Your task to perform on an android device: move an email to a new category in the gmail app Image 0: 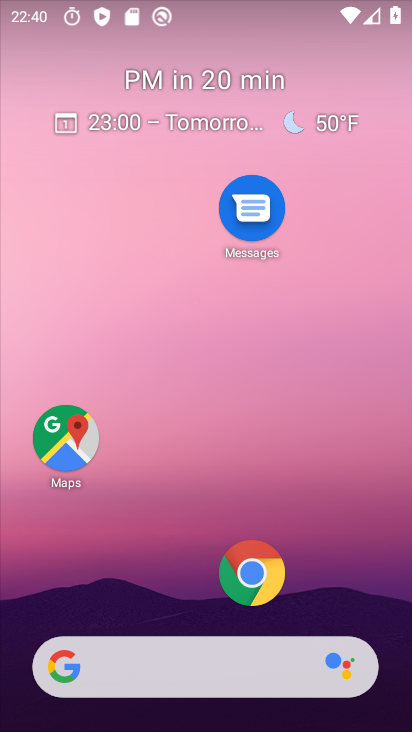
Step 0: drag from (174, 591) to (251, 97)
Your task to perform on an android device: move an email to a new category in the gmail app Image 1: 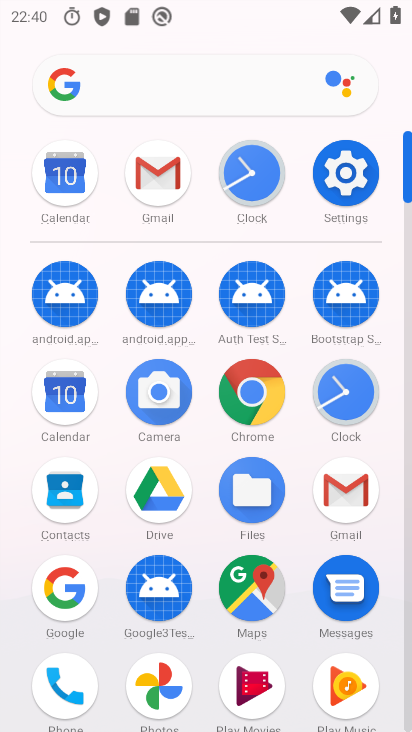
Step 1: click (159, 164)
Your task to perform on an android device: move an email to a new category in the gmail app Image 2: 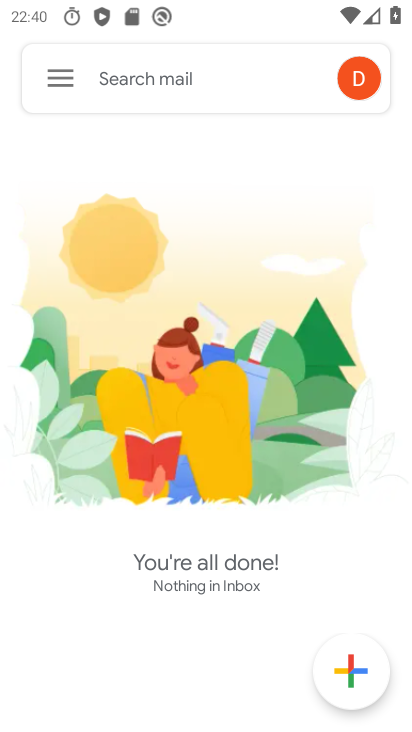
Step 2: click (61, 80)
Your task to perform on an android device: move an email to a new category in the gmail app Image 3: 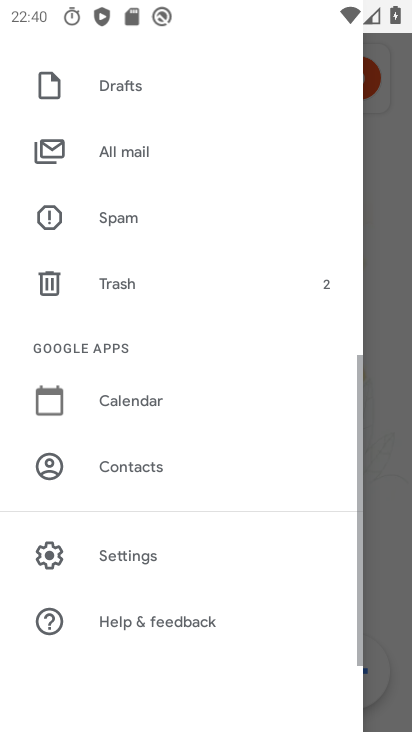
Step 3: click (148, 156)
Your task to perform on an android device: move an email to a new category in the gmail app Image 4: 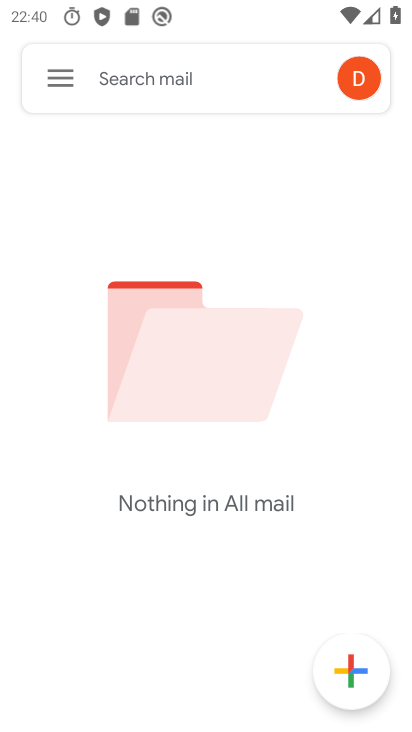
Step 4: task complete